Your task to perform on an android device: check storage Image 0: 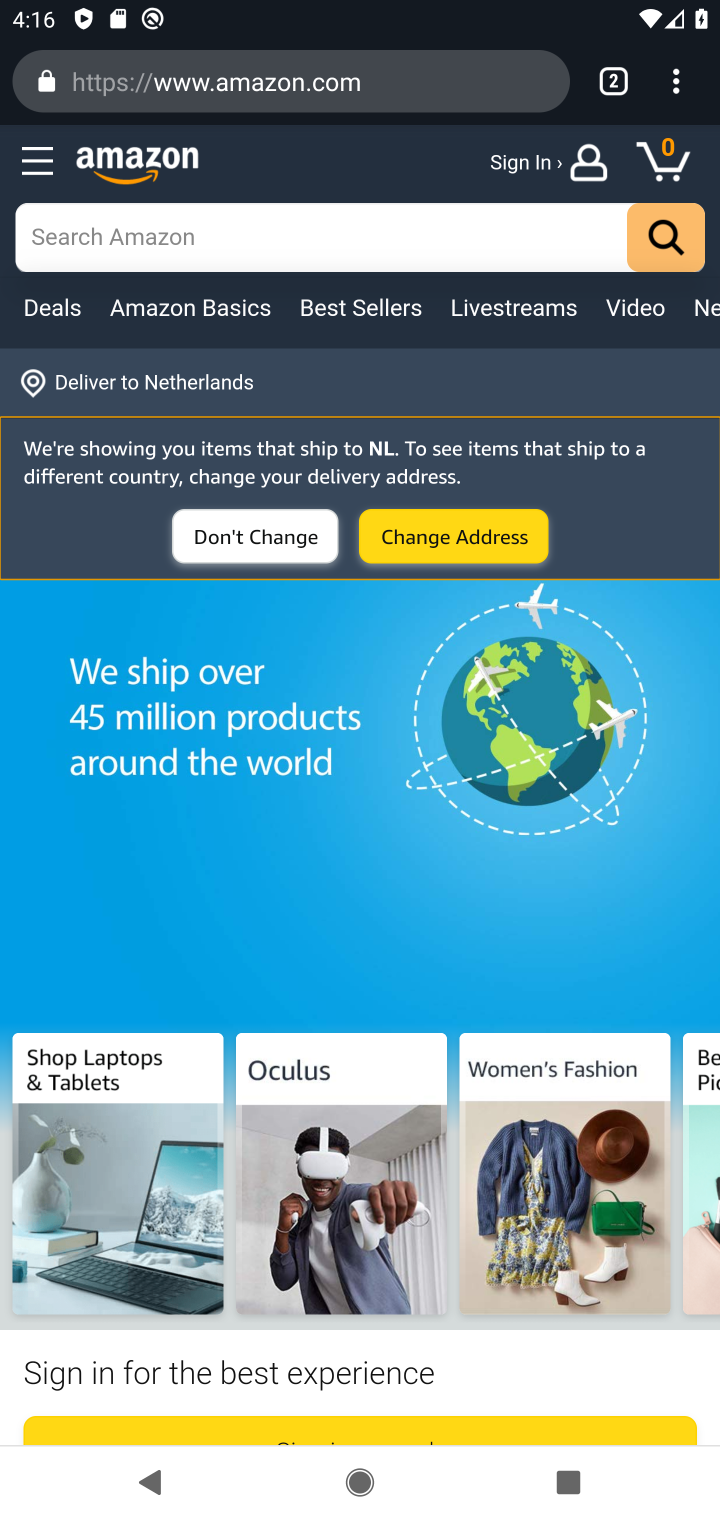
Step 0: press back button
Your task to perform on an android device: check storage Image 1: 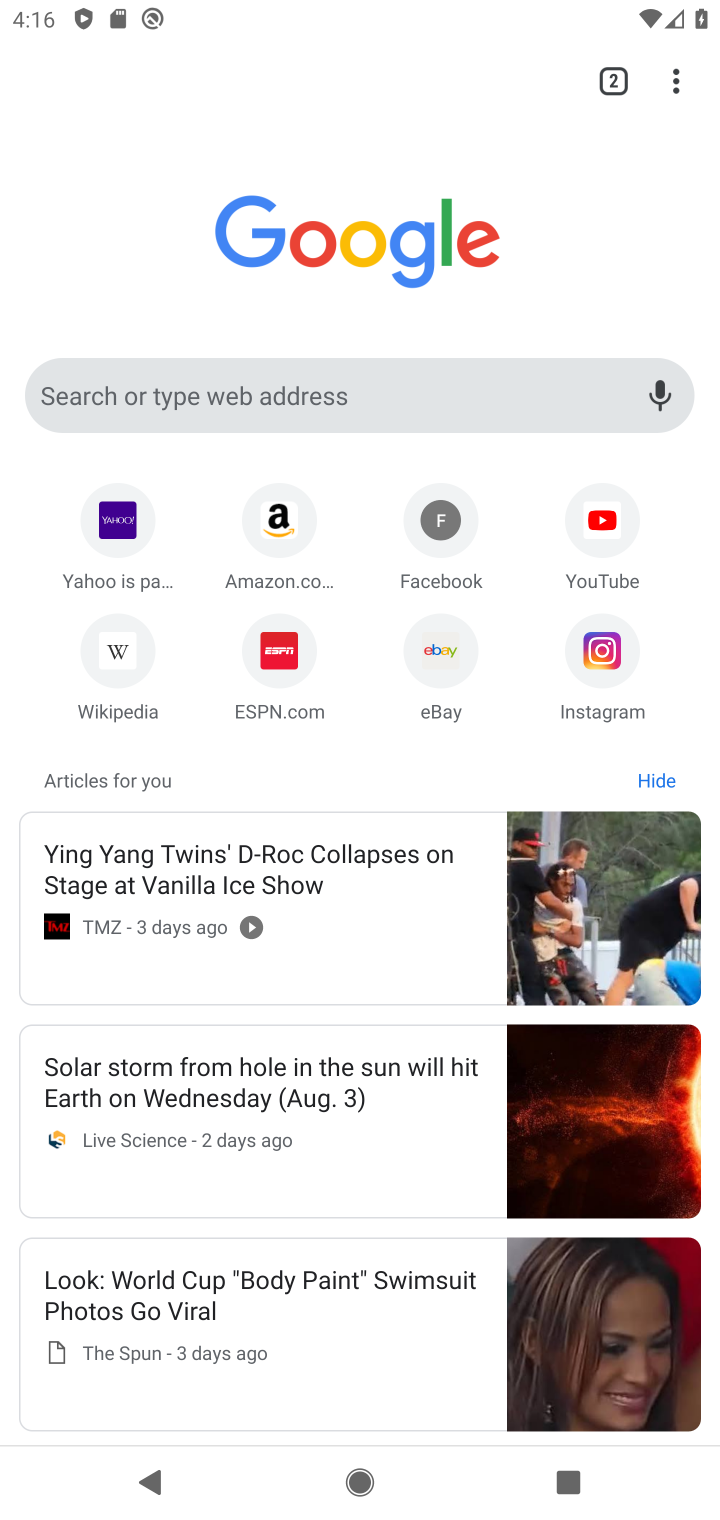
Step 1: press home button
Your task to perform on an android device: check storage Image 2: 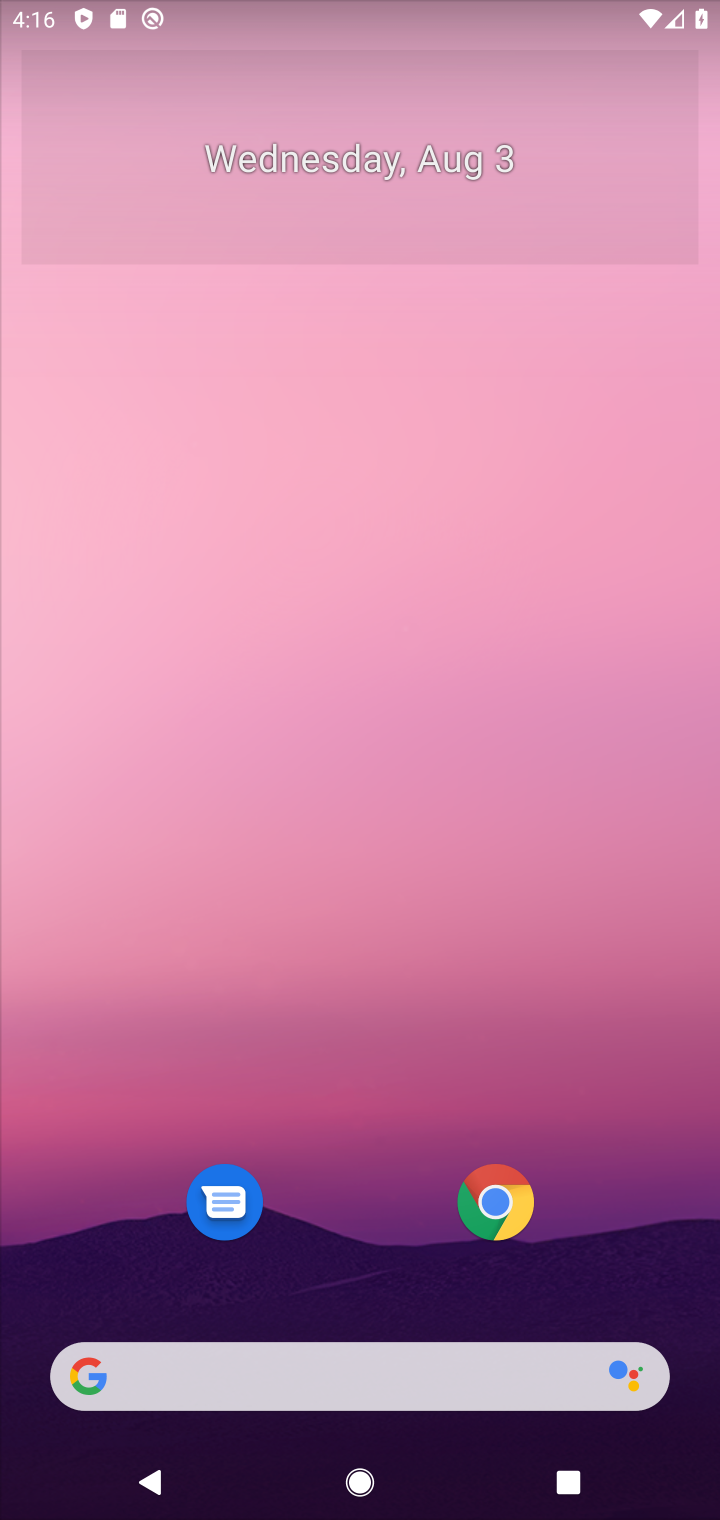
Step 2: drag from (366, 1046) to (505, 22)
Your task to perform on an android device: check storage Image 3: 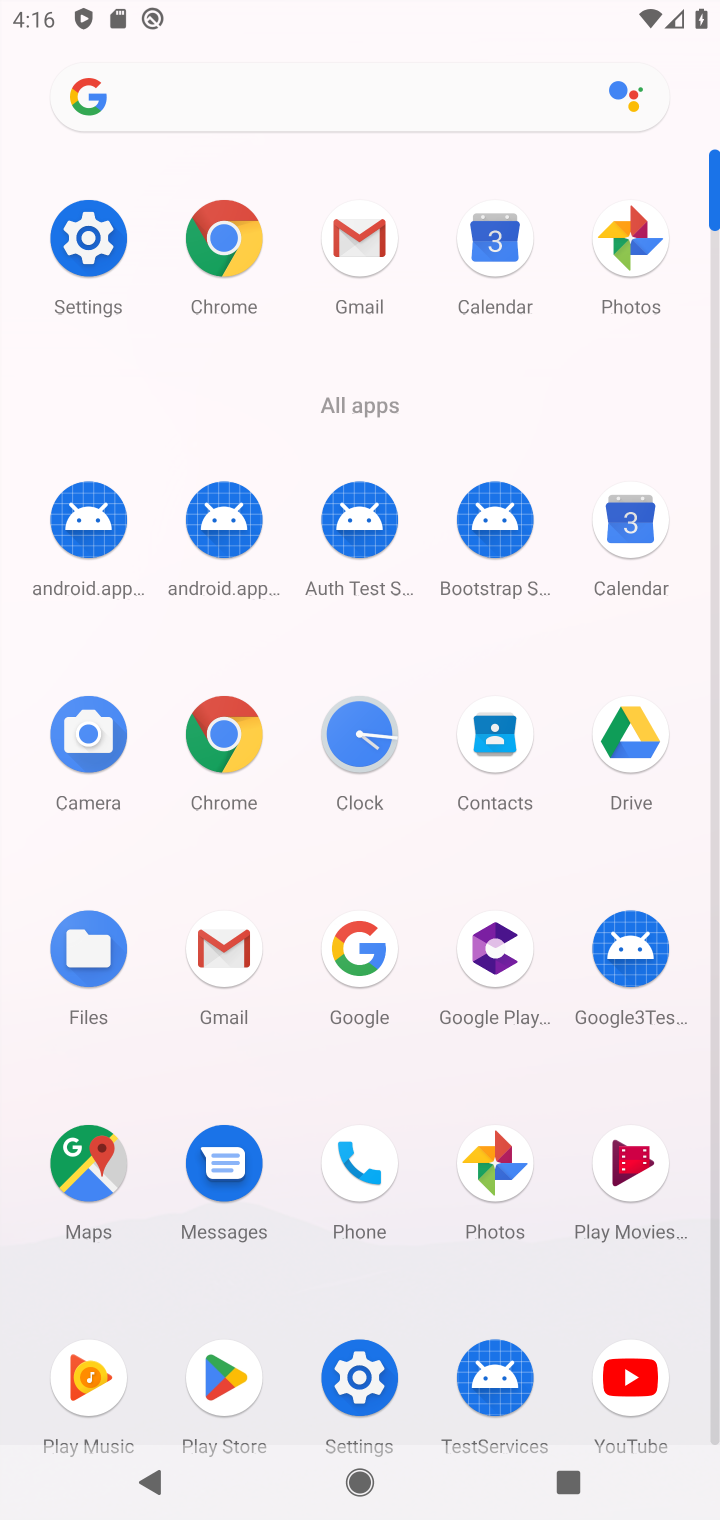
Step 3: click (104, 240)
Your task to perform on an android device: check storage Image 4: 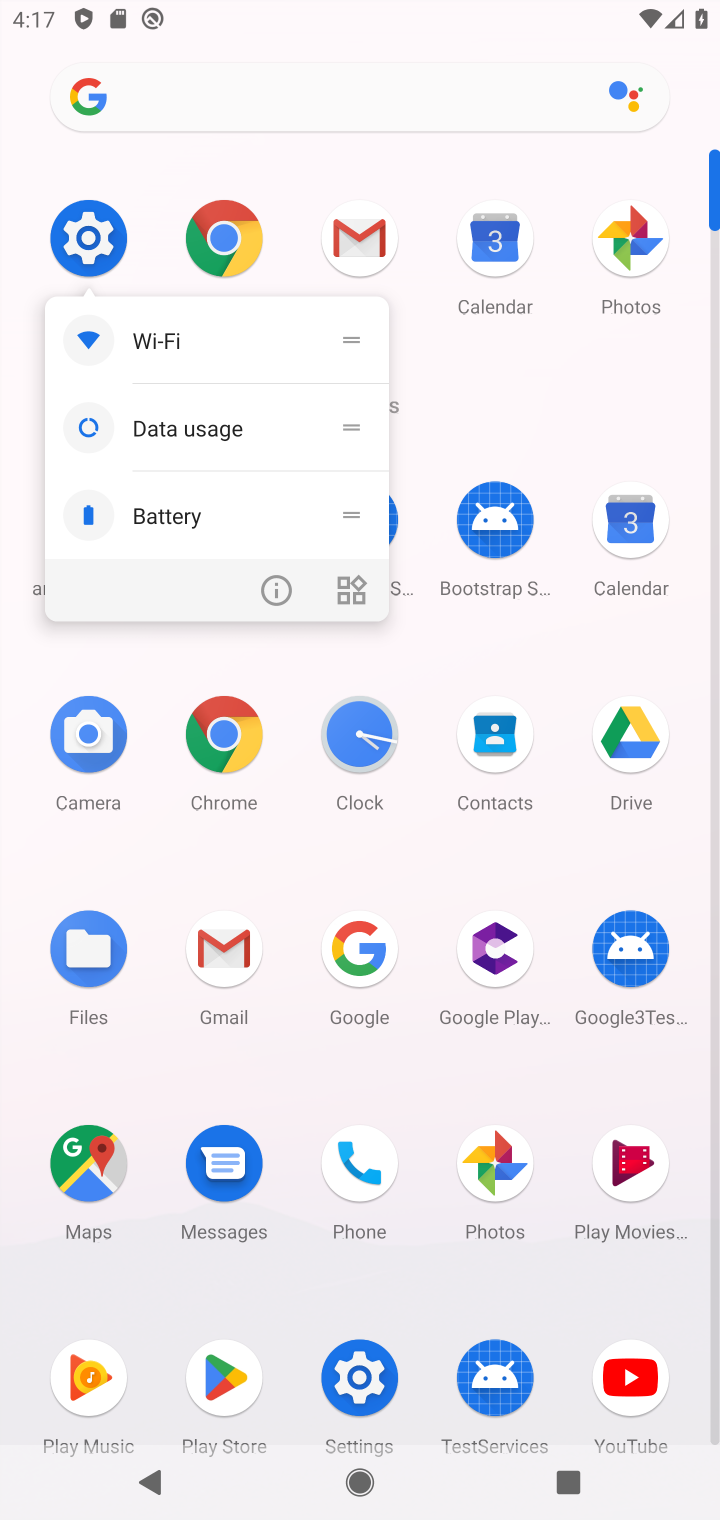
Step 4: click (67, 237)
Your task to perform on an android device: check storage Image 5: 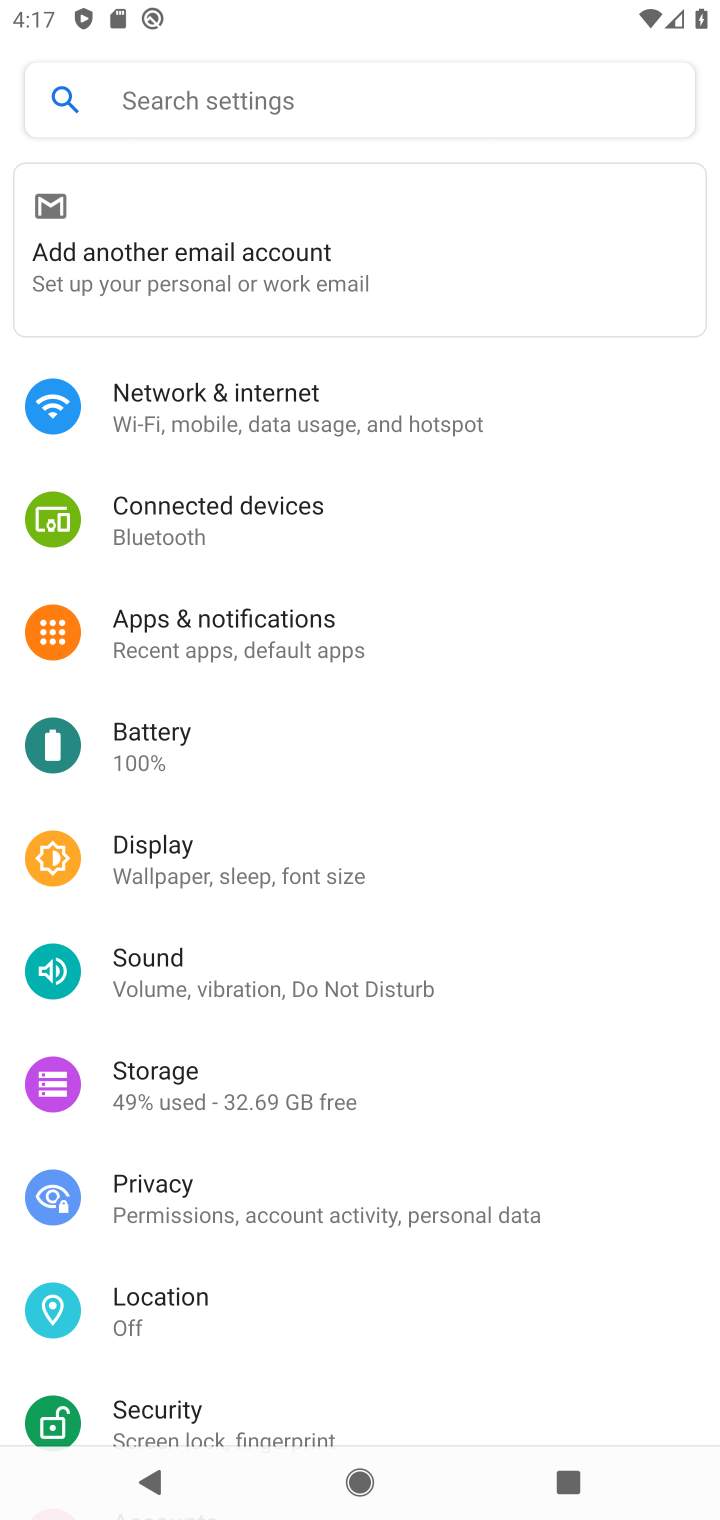
Step 5: click (186, 1062)
Your task to perform on an android device: check storage Image 6: 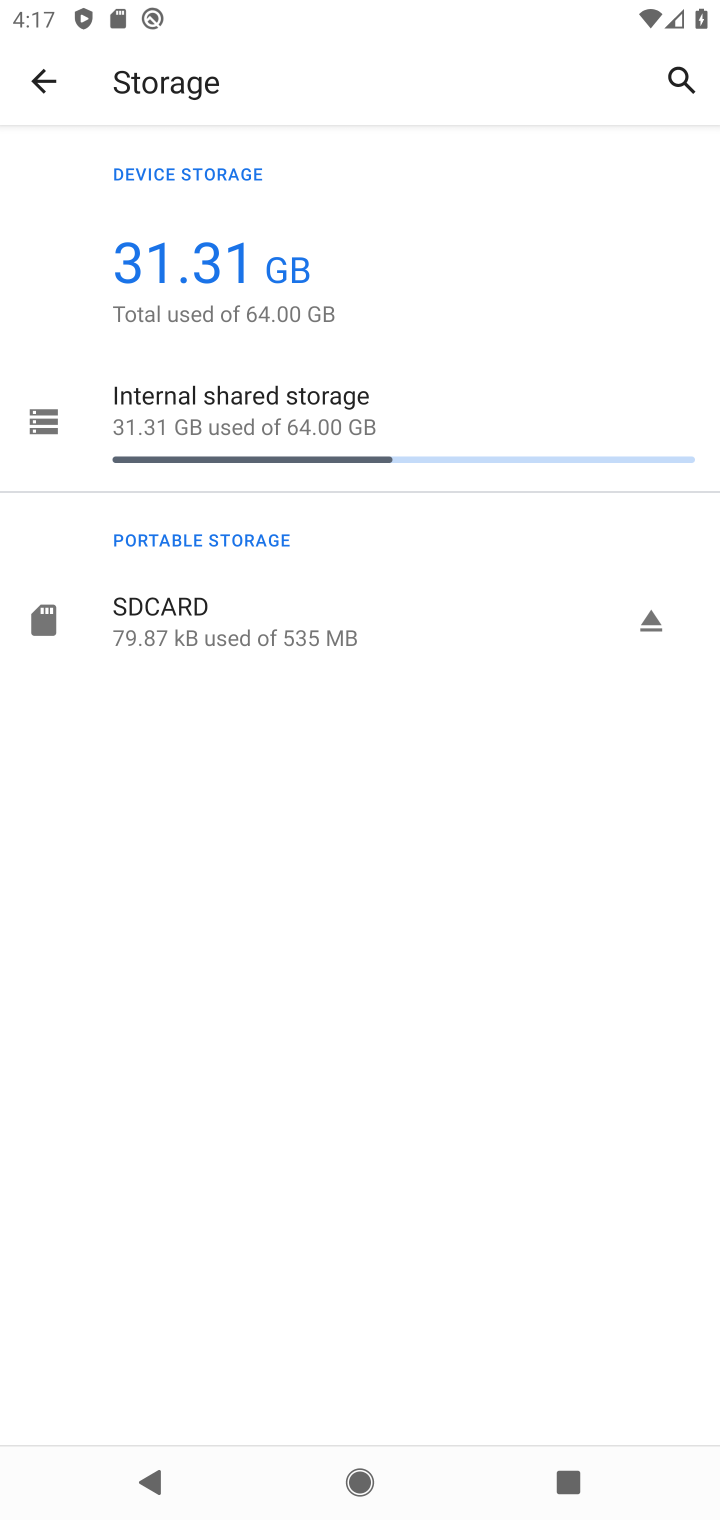
Step 6: task complete